Your task to perform on an android device: Open calendar and show me the fourth week of next month Image 0: 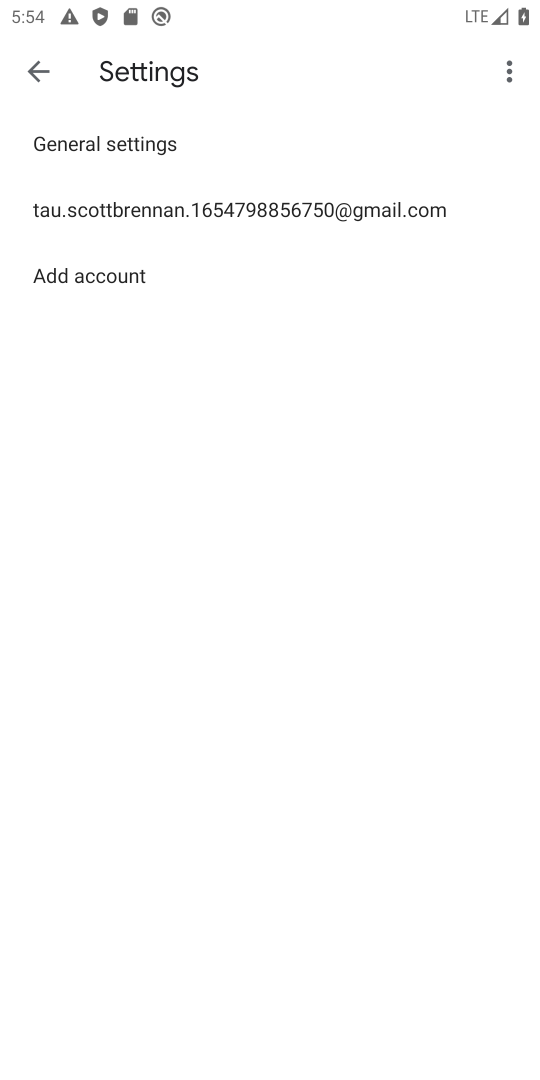
Step 0: press home button
Your task to perform on an android device: Open calendar and show me the fourth week of next month Image 1: 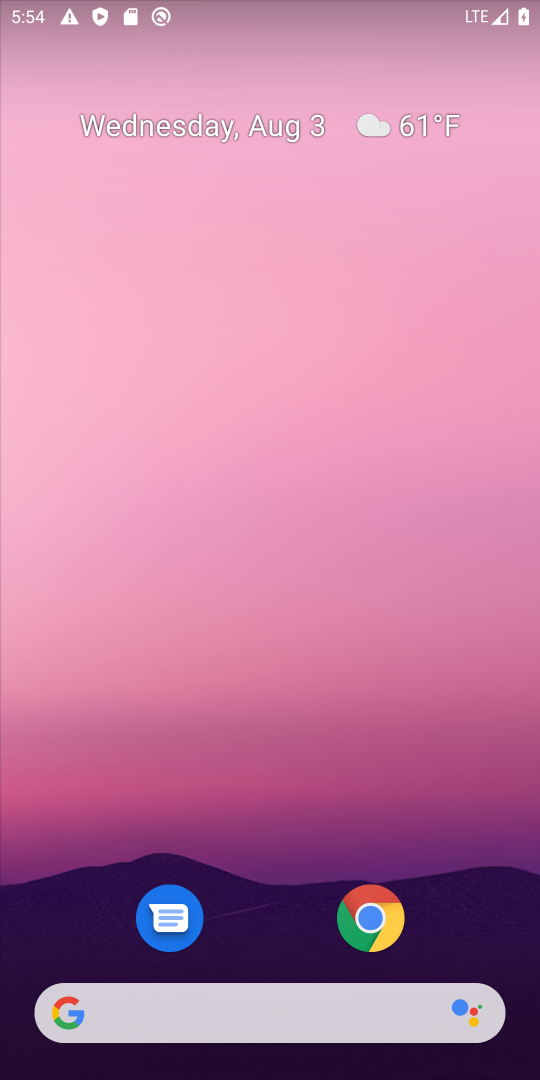
Step 1: drag from (296, 996) to (274, 269)
Your task to perform on an android device: Open calendar and show me the fourth week of next month Image 2: 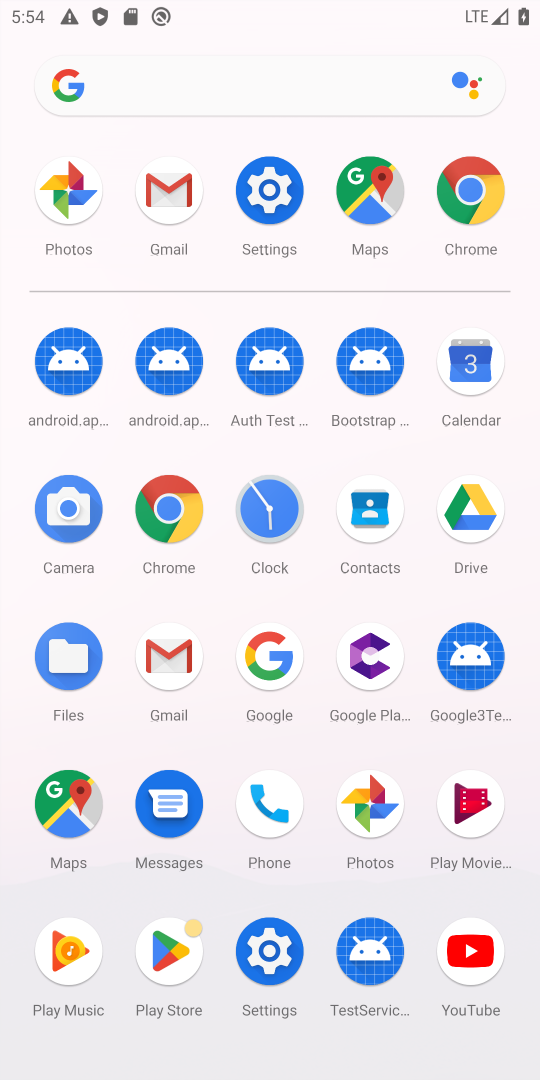
Step 2: click (459, 386)
Your task to perform on an android device: Open calendar and show me the fourth week of next month Image 3: 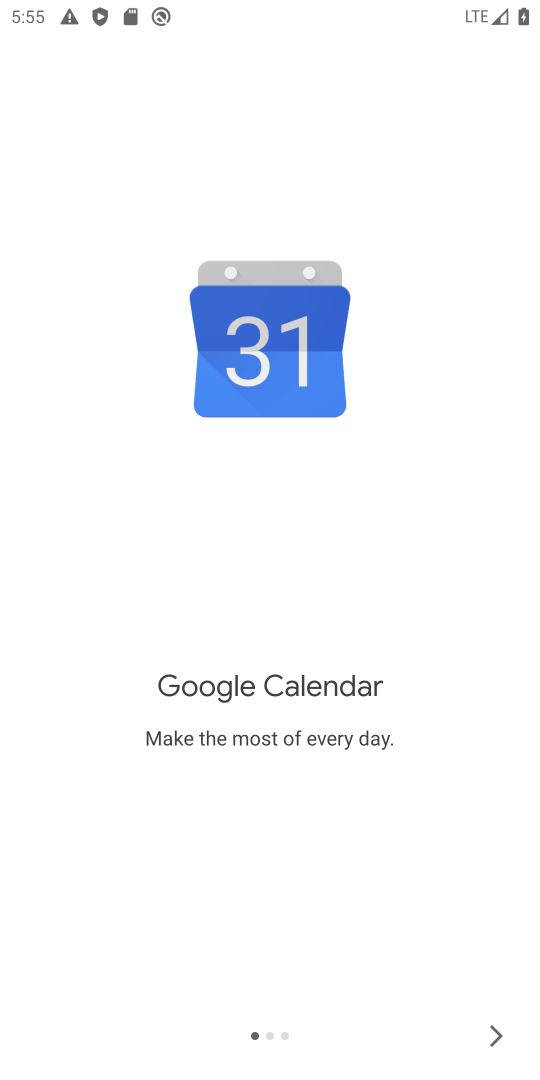
Step 3: click (483, 1044)
Your task to perform on an android device: Open calendar and show me the fourth week of next month Image 4: 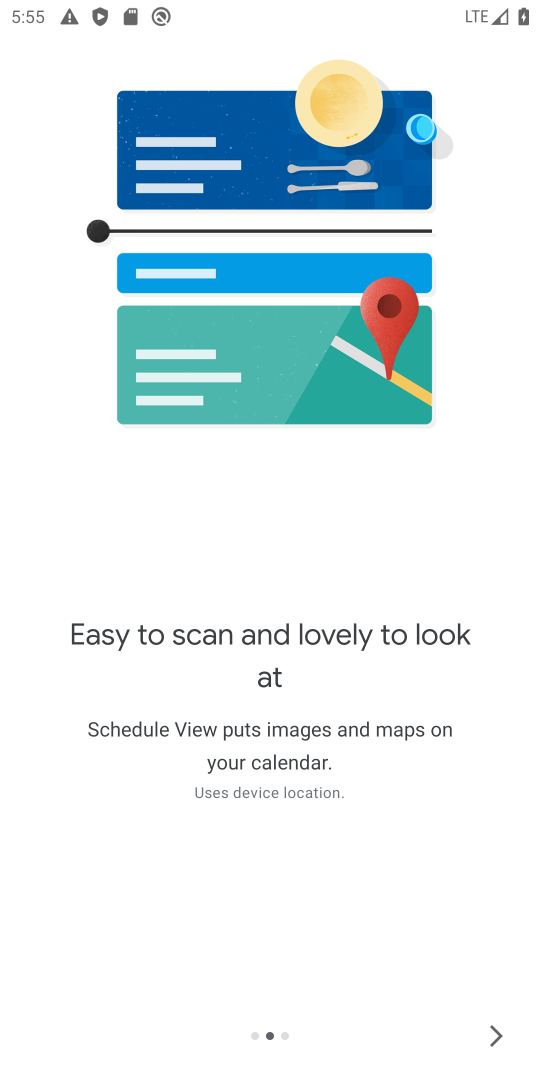
Step 4: click (483, 1044)
Your task to perform on an android device: Open calendar and show me the fourth week of next month Image 5: 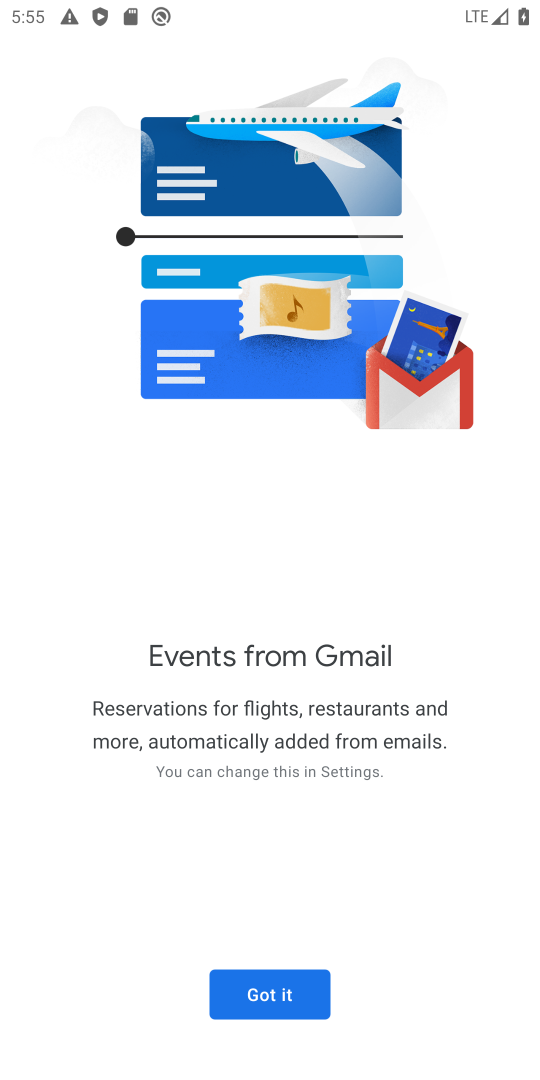
Step 5: click (248, 988)
Your task to perform on an android device: Open calendar and show me the fourth week of next month Image 6: 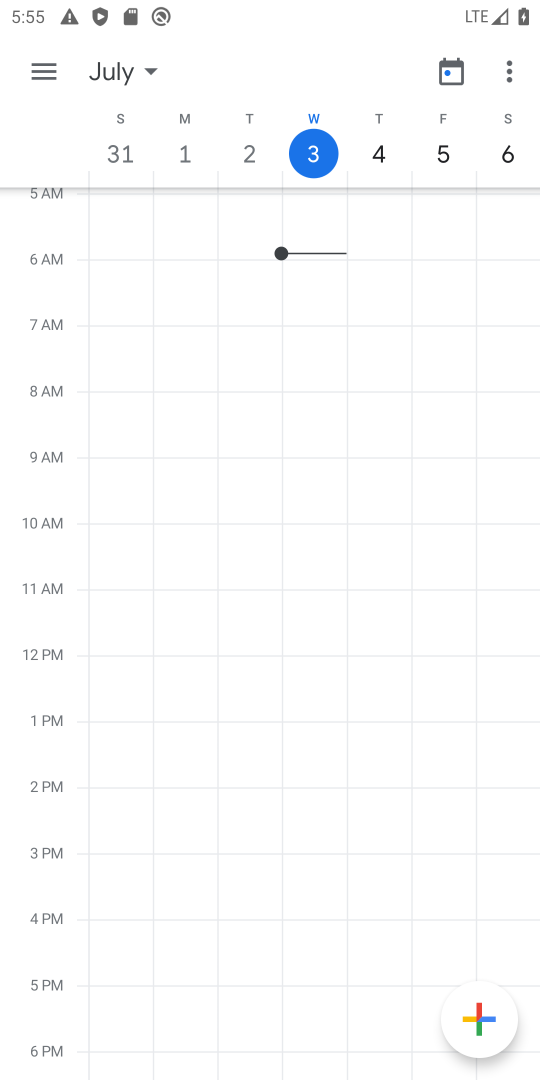
Step 6: click (54, 70)
Your task to perform on an android device: Open calendar and show me the fourth week of next month Image 7: 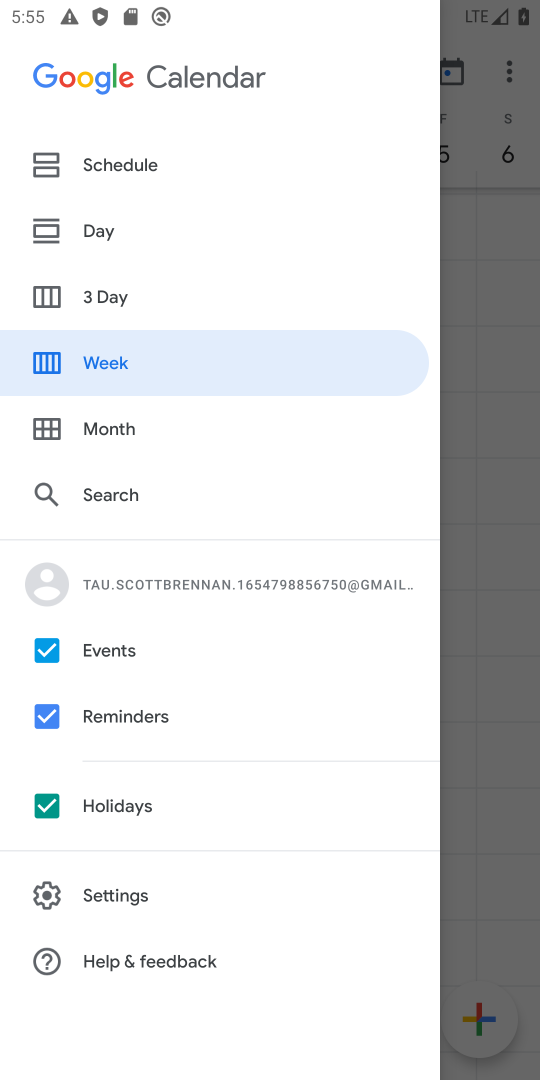
Step 7: click (95, 436)
Your task to perform on an android device: Open calendar and show me the fourth week of next month Image 8: 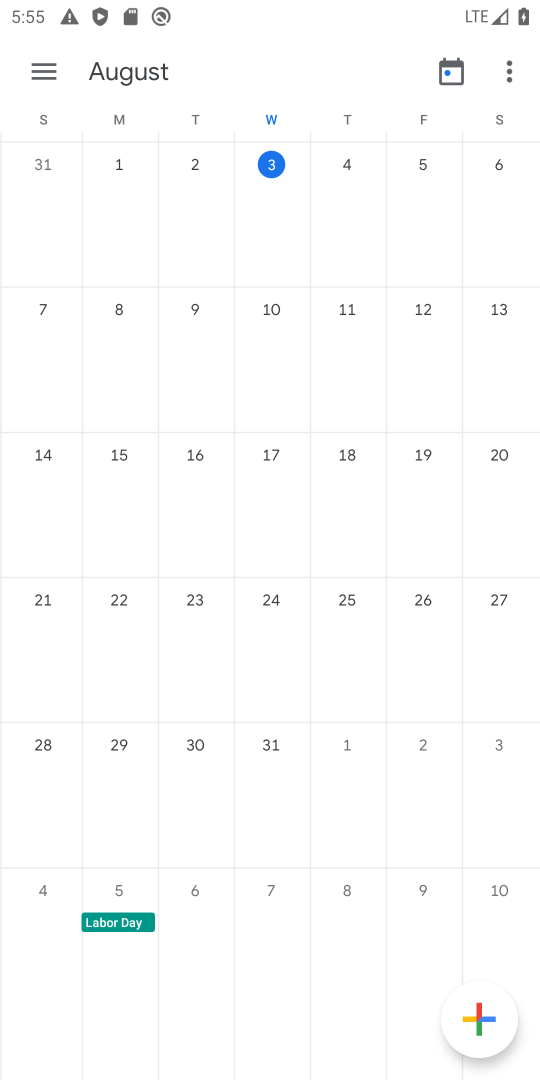
Step 8: task complete